Your task to perform on an android device: Open battery settings Image 0: 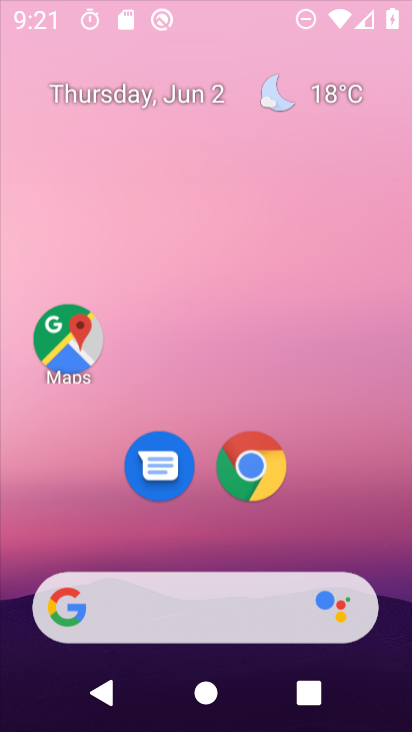
Step 0: press home button
Your task to perform on an android device: Open battery settings Image 1: 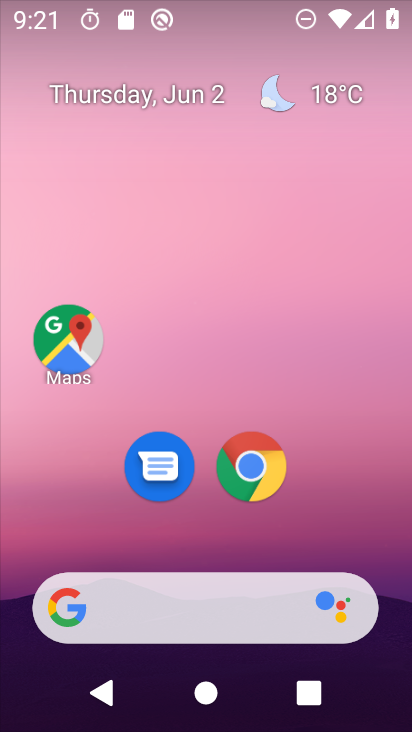
Step 1: drag from (283, 531) to (267, 1)
Your task to perform on an android device: Open battery settings Image 2: 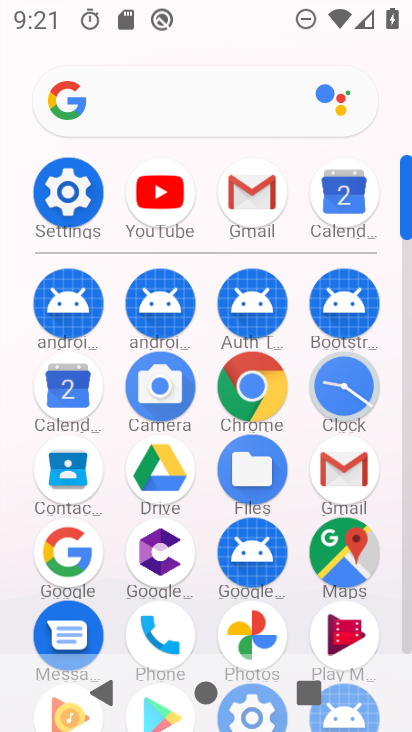
Step 2: click (78, 192)
Your task to perform on an android device: Open battery settings Image 3: 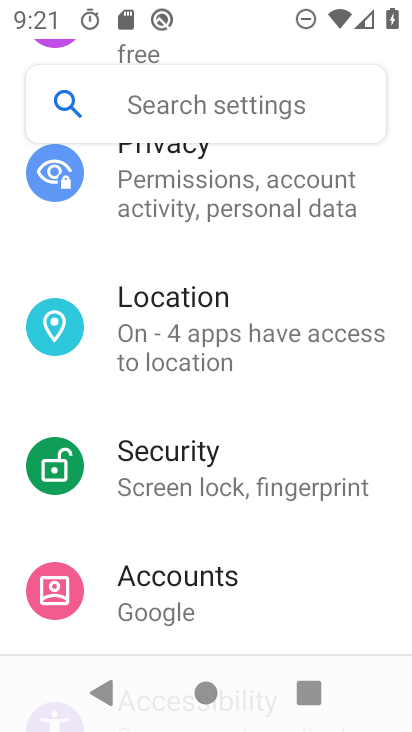
Step 3: drag from (248, 267) to (266, 712)
Your task to perform on an android device: Open battery settings Image 4: 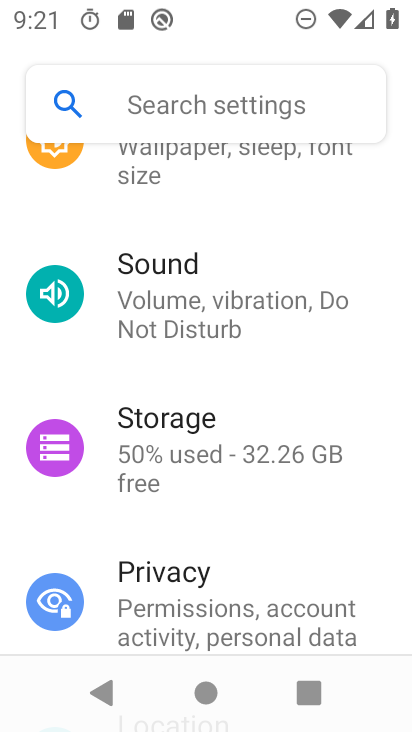
Step 4: drag from (293, 306) to (291, 722)
Your task to perform on an android device: Open battery settings Image 5: 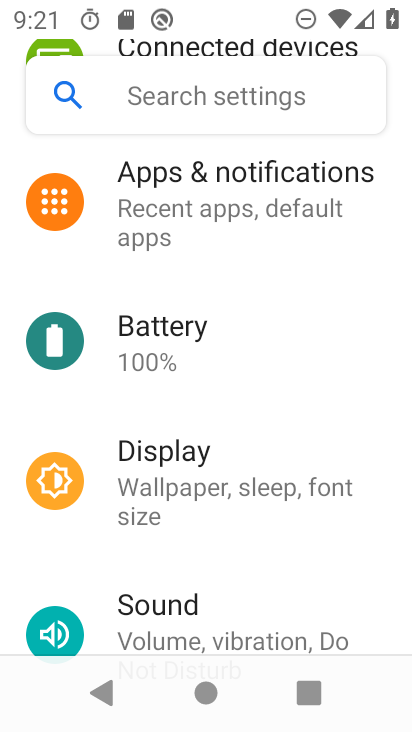
Step 5: click (147, 336)
Your task to perform on an android device: Open battery settings Image 6: 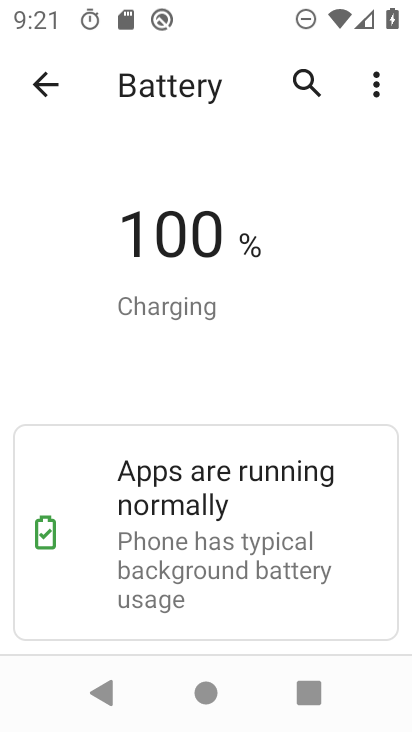
Step 6: task complete